Your task to perform on an android device: choose inbox layout in the gmail app Image 0: 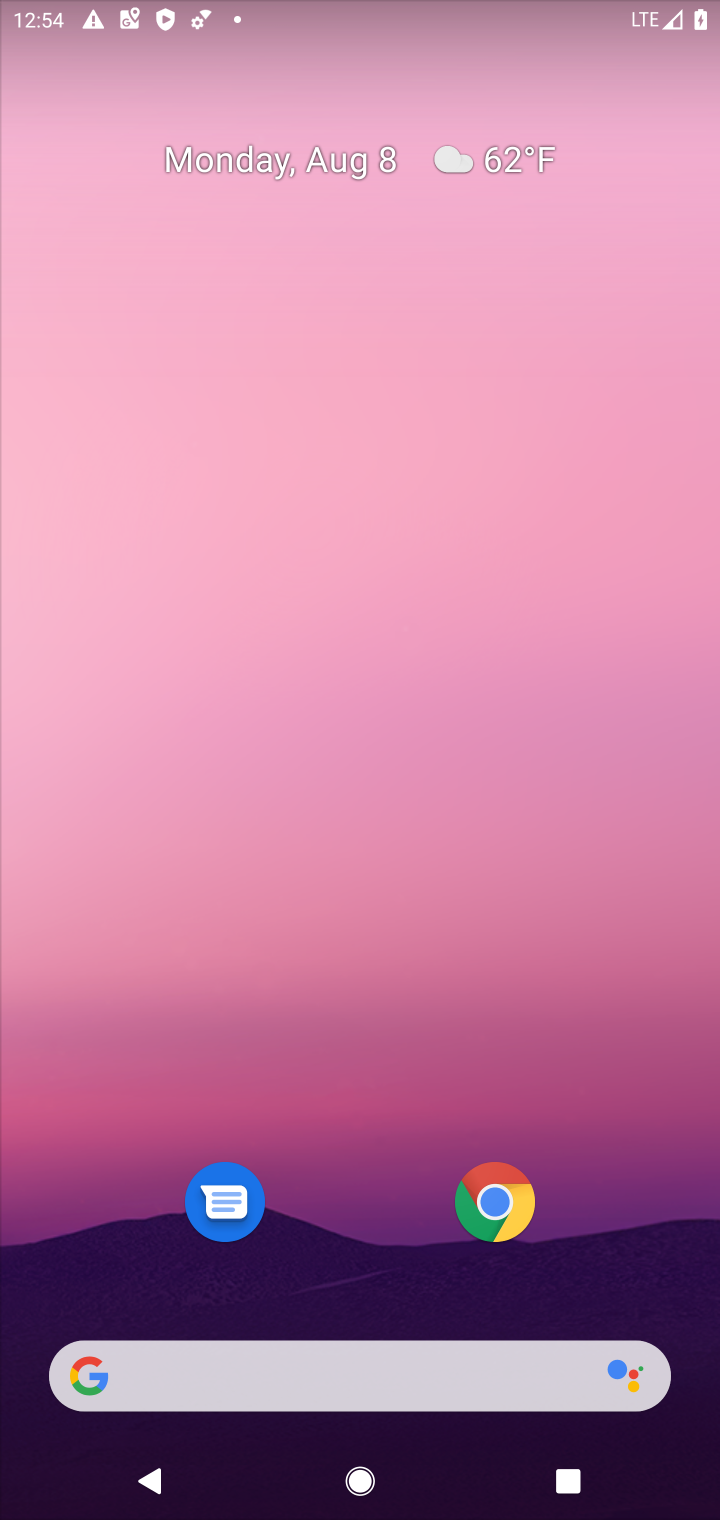
Step 0: drag from (372, 976) to (304, 170)
Your task to perform on an android device: choose inbox layout in the gmail app Image 1: 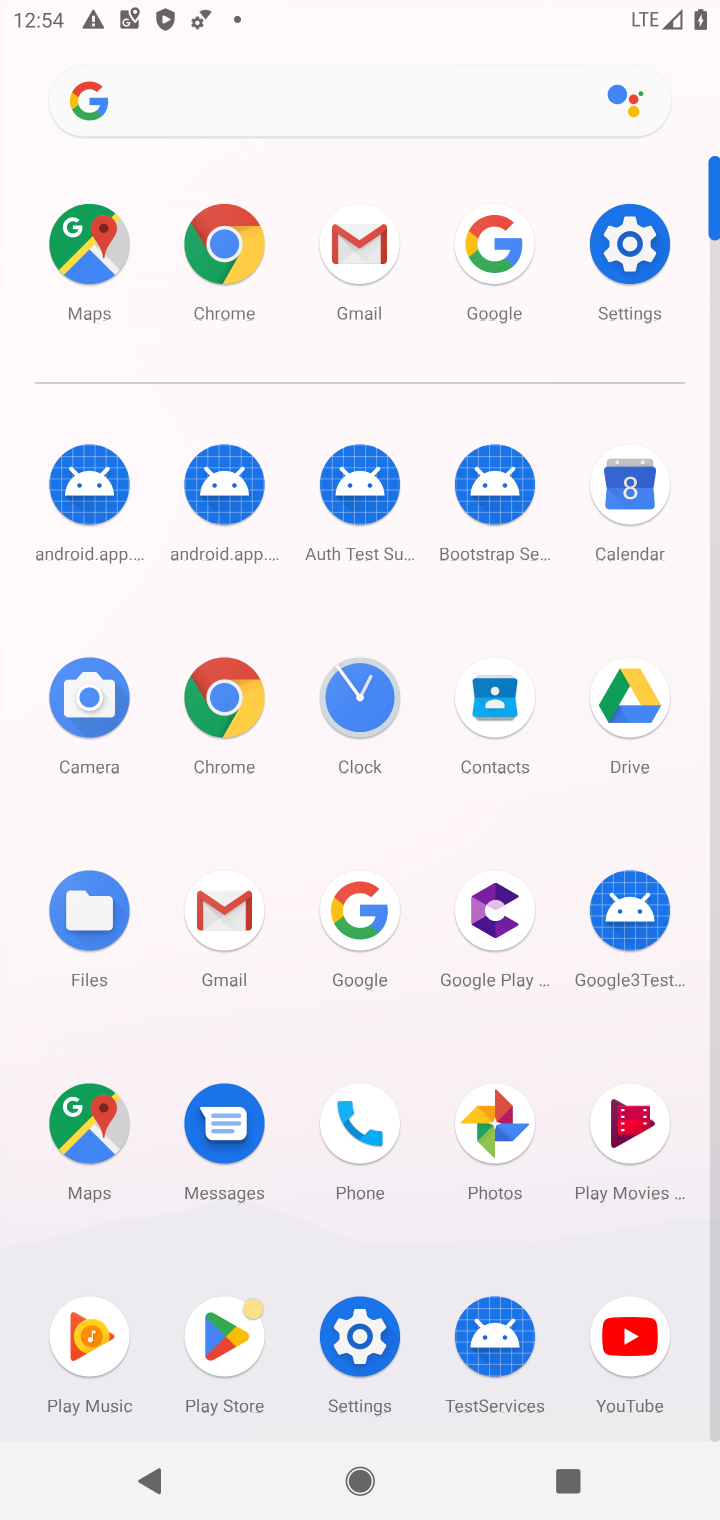
Step 1: click (350, 260)
Your task to perform on an android device: choose inbox layout in the gmail app Image 2: 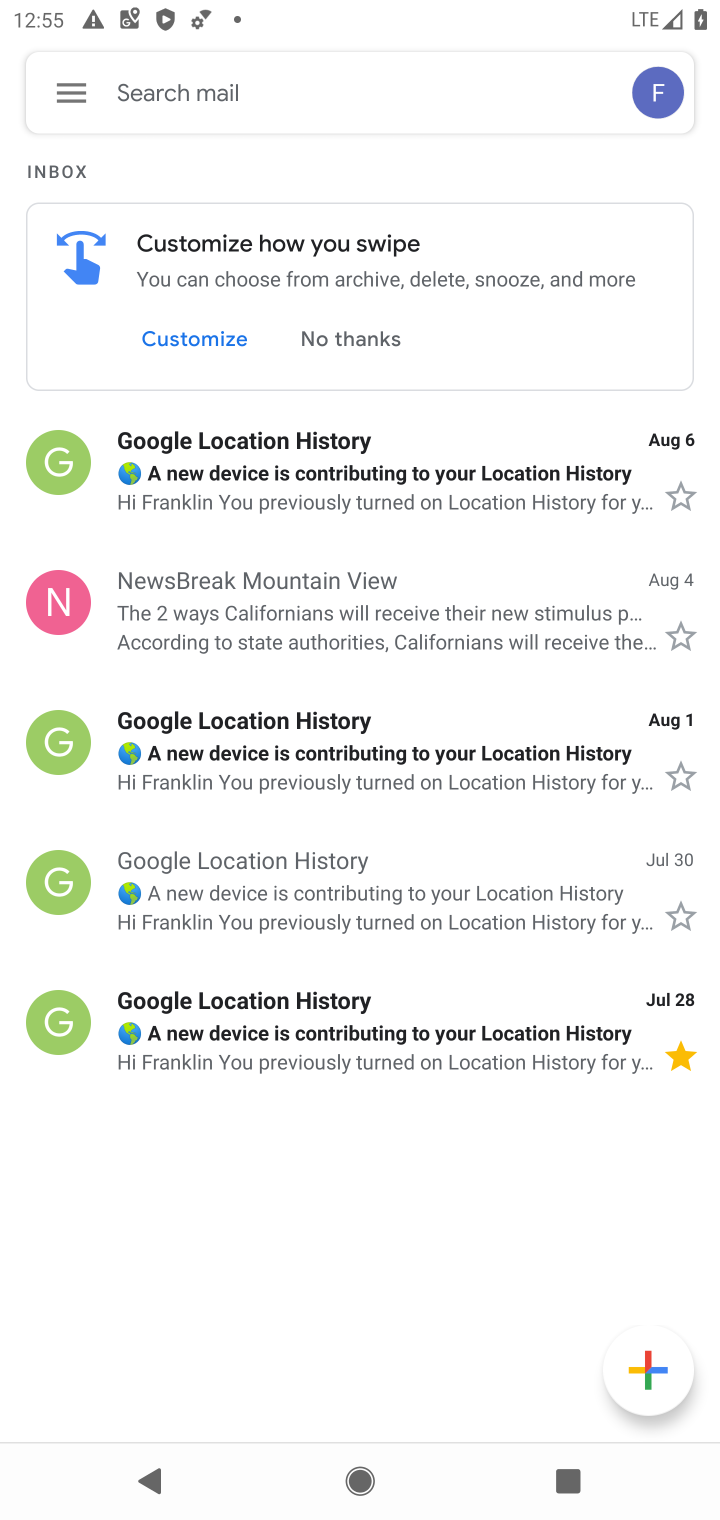
Step 2: click (71, 106)
Your task to perform on an android device: choose inbox layout in the gmail app Image 3: 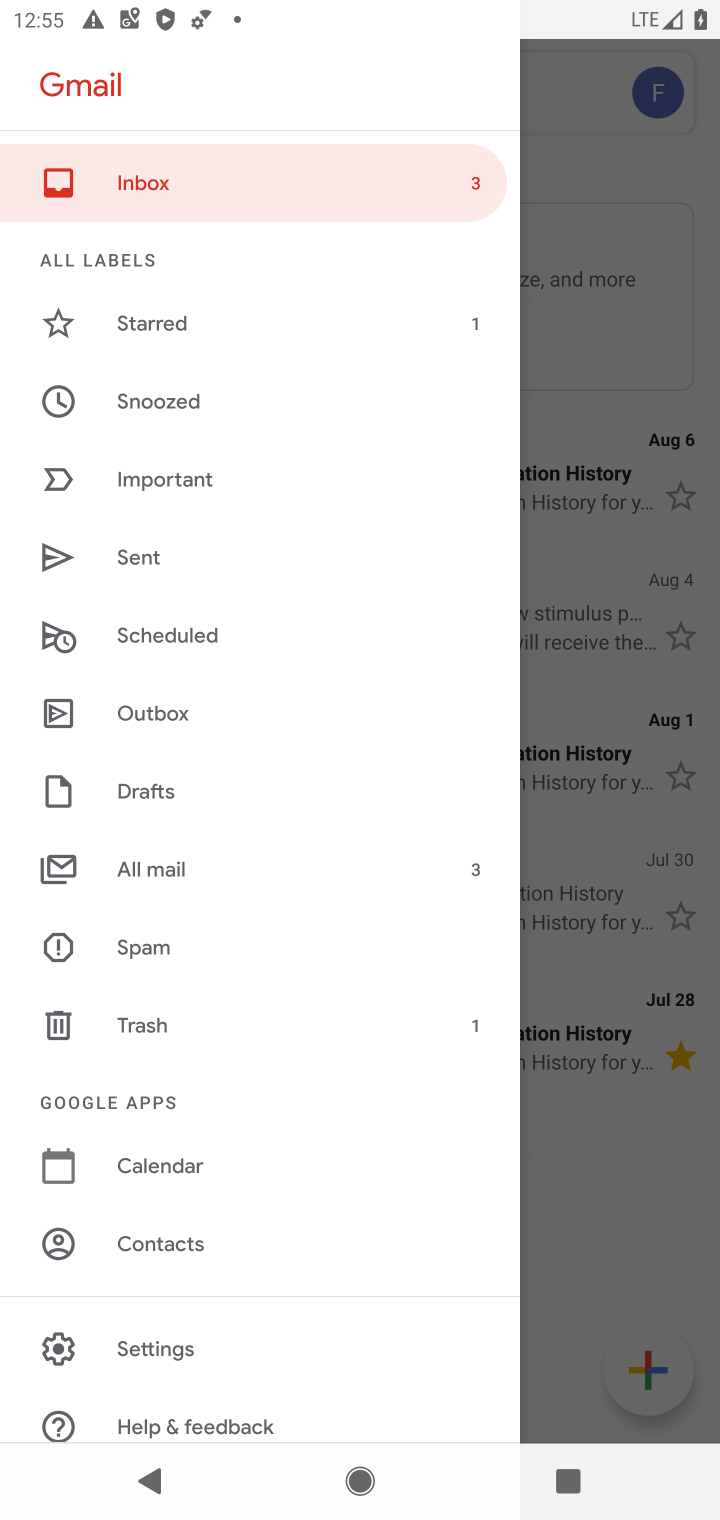
Step 3: click (136, 1333)
Your task to perform on an android device: choose inbox layout in the gmail app Image 4: 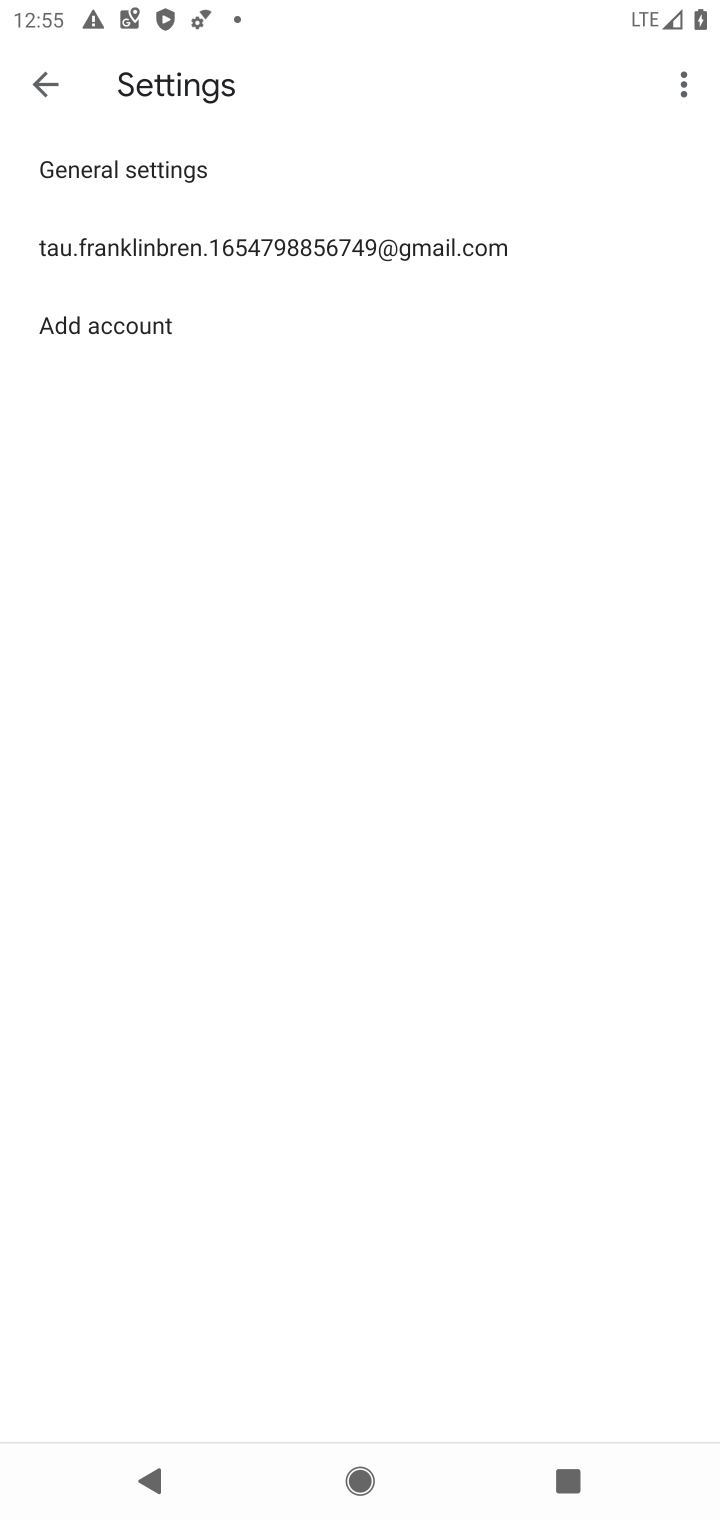
Step 4: click (285, 259)
Your task to perform on an android device: choose inbox layout in the gmail app Image 5: 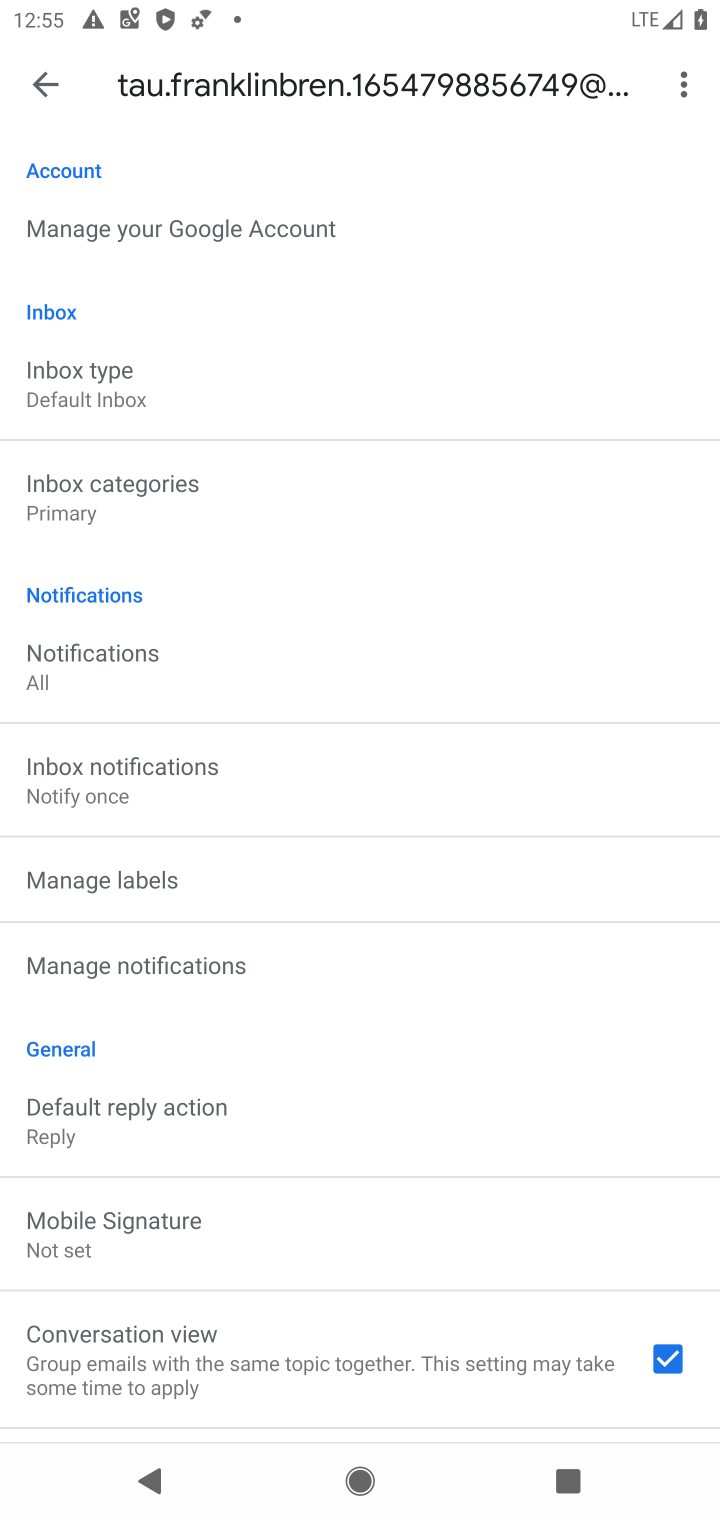
Step 5: click (86, 398)
Your task to perform on an android device: choose inbox layout in the gmail app Image 6: 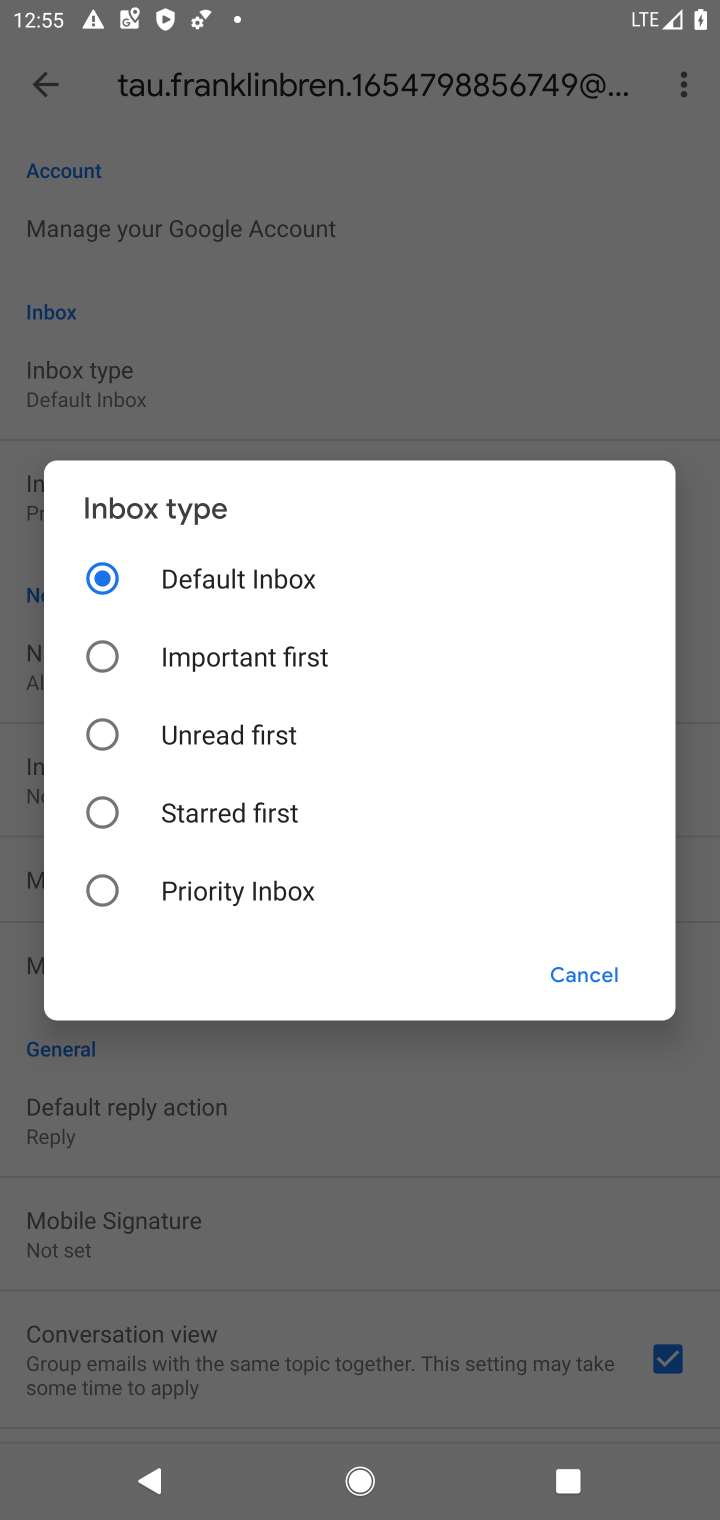
Step 6: click (116, 891)
Your task to perform on an android device: choose inbox layout in the gmail app Image 7: 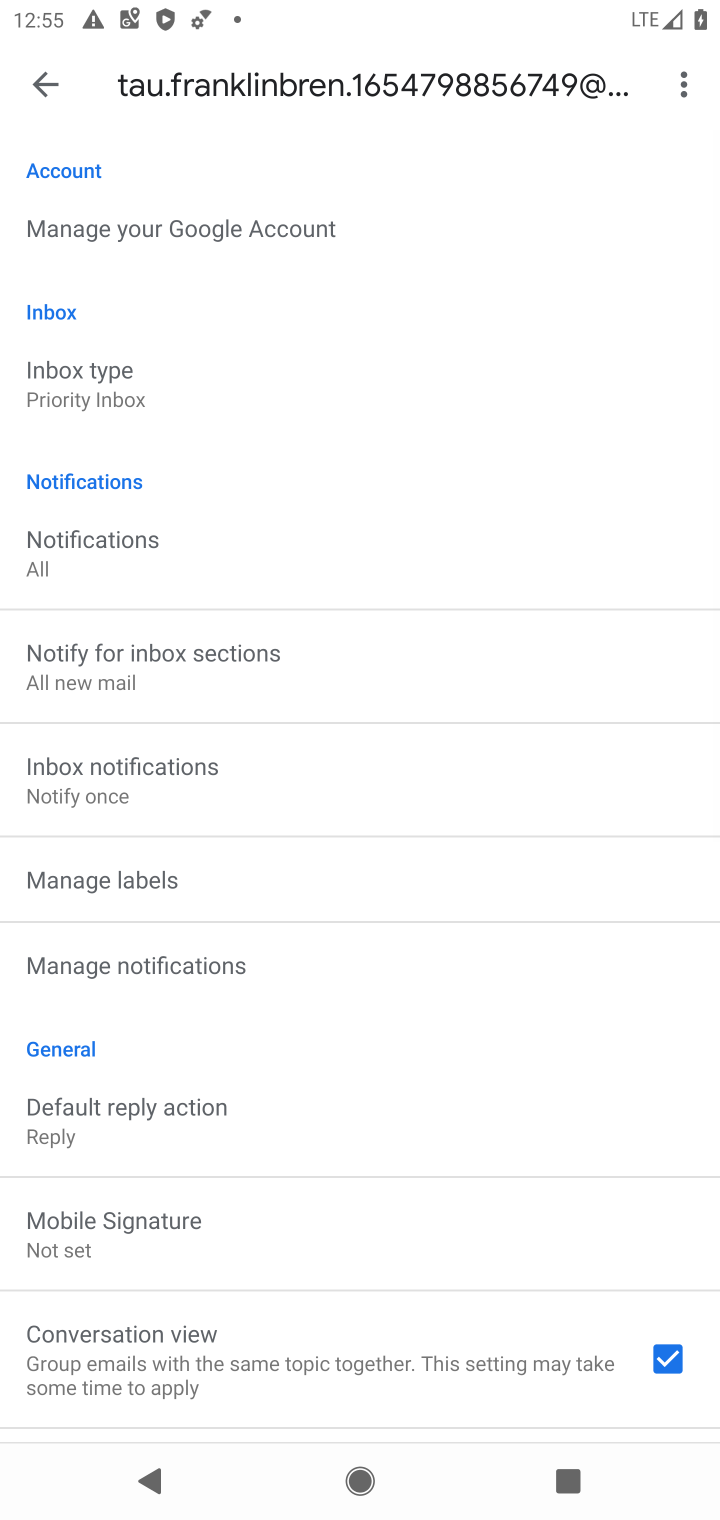
Step 7: task complete